Your task to perform on an android device: manage bookmarks in the chrome app Image 0: 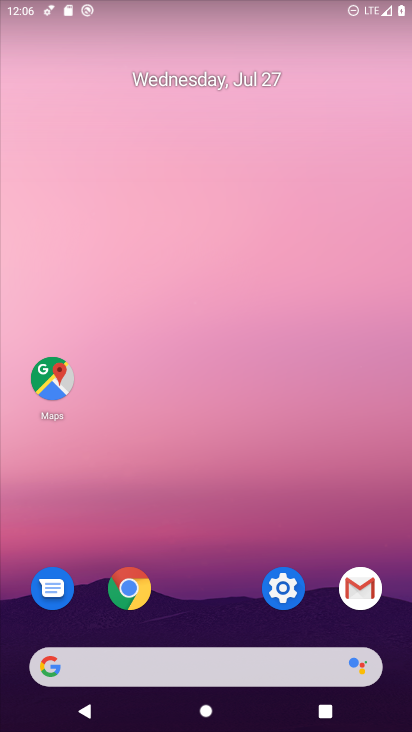
Step 0: click (133, 580)
Your task to perform on an android device: manage bookmarks in the chrome app Image 1: 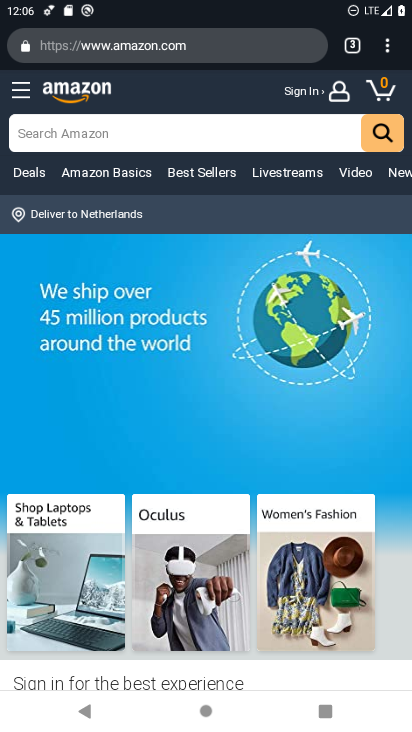
Step 1: click (389, 49)
Your task to perform on an android device: manage bookmarks in the chrome app Image 2: 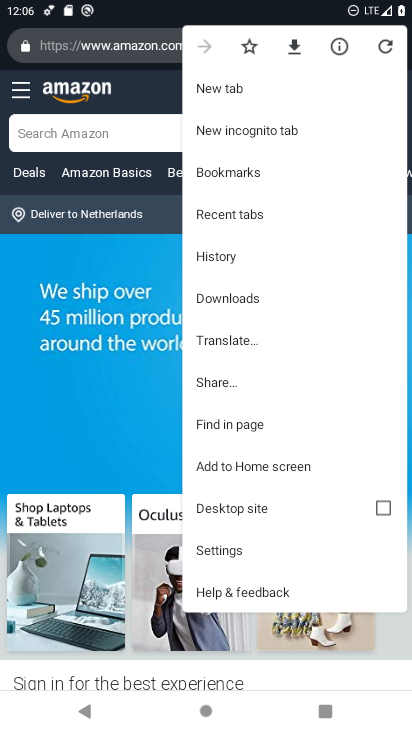
Step 2: click (244, 179)
Your task to perform on an android device: manage bookmarks in the chrome app Image 3: 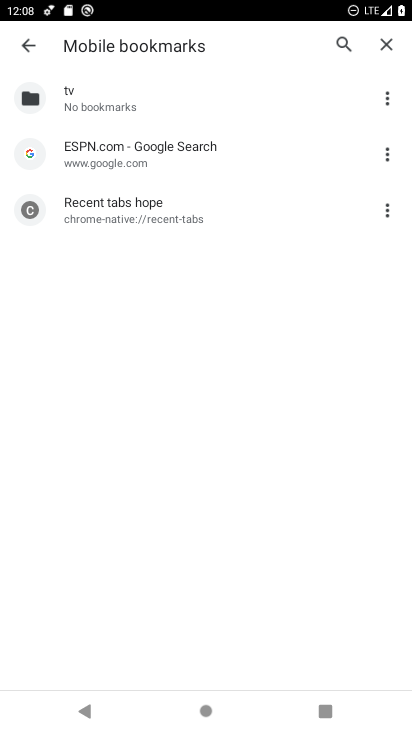
Step 3: task complete